Your task to perform on an android device: Go to battery settings Image 0: 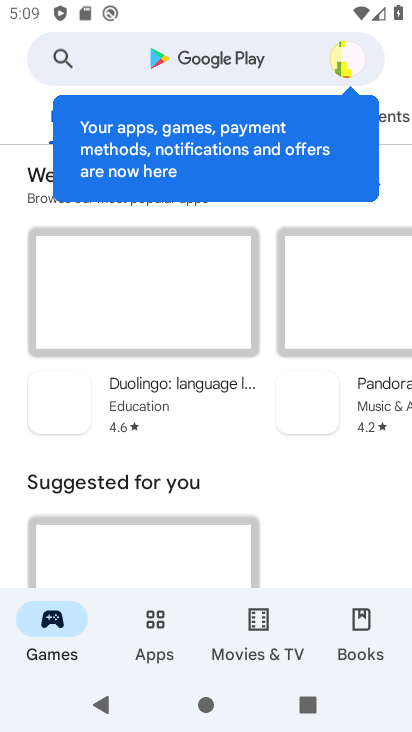
Step 0: press home button
Your task to perform on an android device: Go to battery settings Image 1: 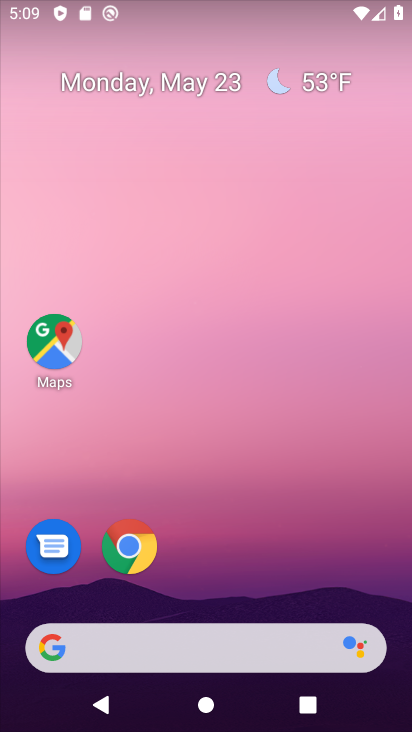
Step 1: drag from (235, 585) to (203, 40)
Your task to perform on an android device: Go to battery settings Image 2: 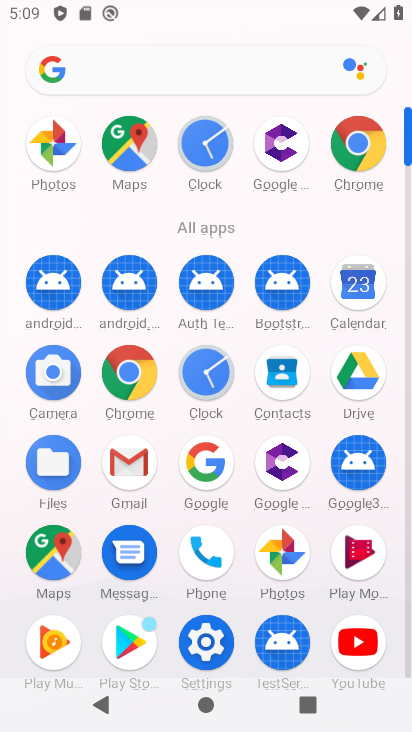
Step 2: click (215, 639)
Your task to perform on an android device: Go to battery settings Image 3: 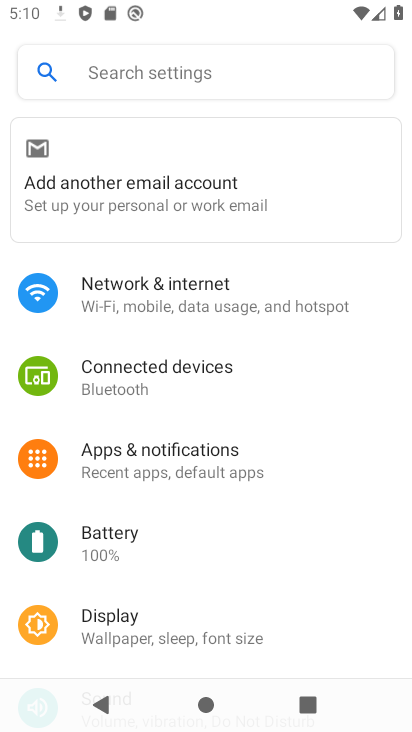
Step 3: click (122, 543)
Your task to perform on an android device: Go to battery settings Image 4: 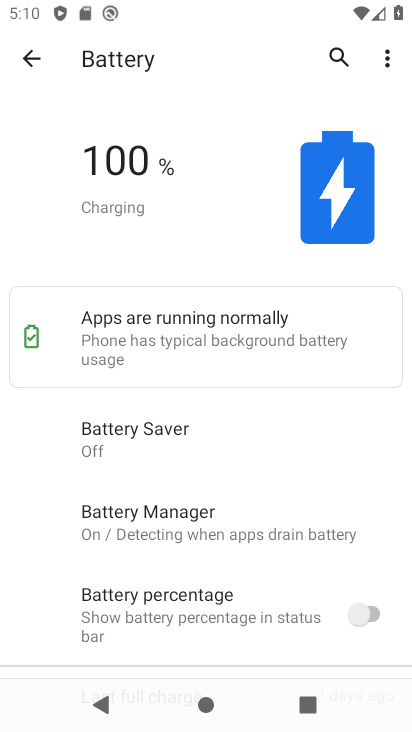
Step 4: task complete